Your task to perform on an android device: turn on wifi Image 0: 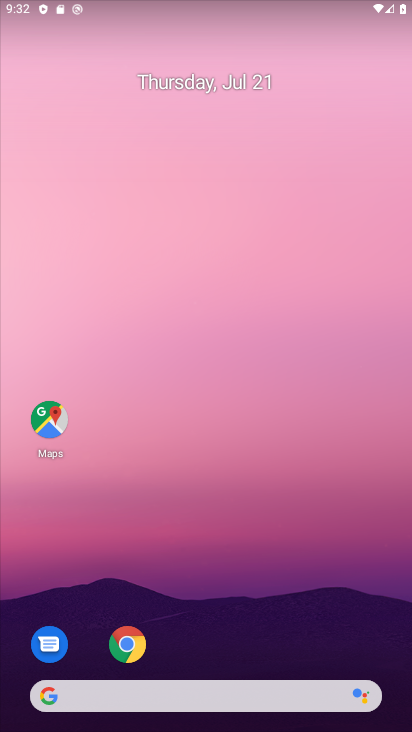
Step 0: drag from (290, 635) to (204, 173)
Your task to perform on an android device: turn on wifi Image 1: 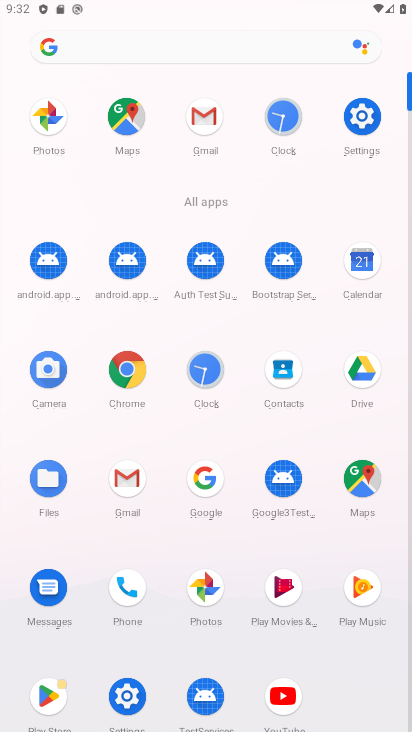
Step 1: click (360, 129)
Your task to perform on an android device: turn on wifi Image 2: 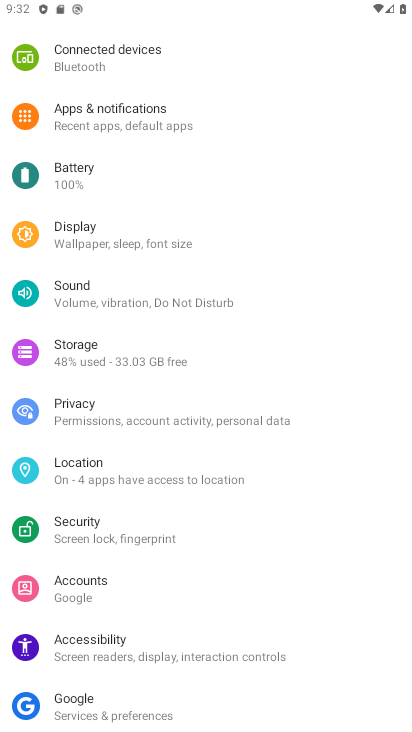
Step 2: drag from (191, 115) to (222, 413)
Your task to perform on an android device: turn on wifi Image 3: 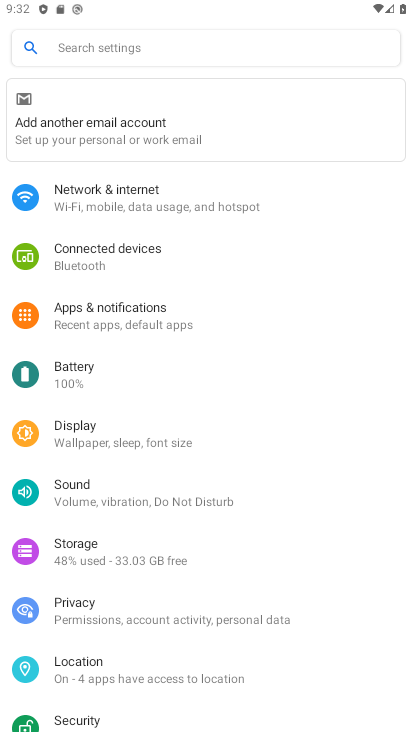
Step 3: click (230, 179)
Your task to perform on an android device: turn on wifi Image 4: 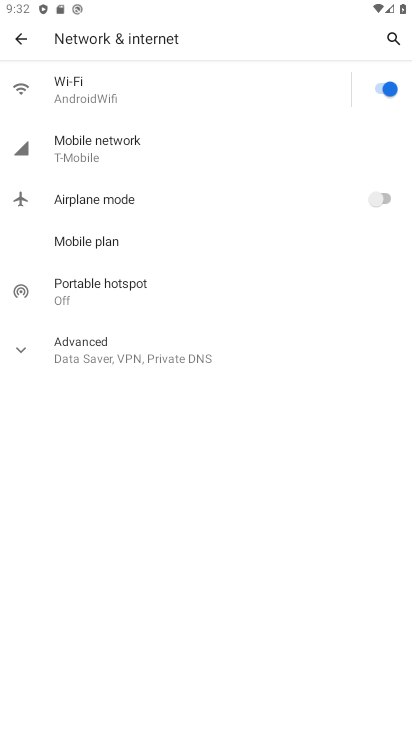
Step 4: task complete